Your task to perform on an android device: Is it going to rain this weekend? Image 0: 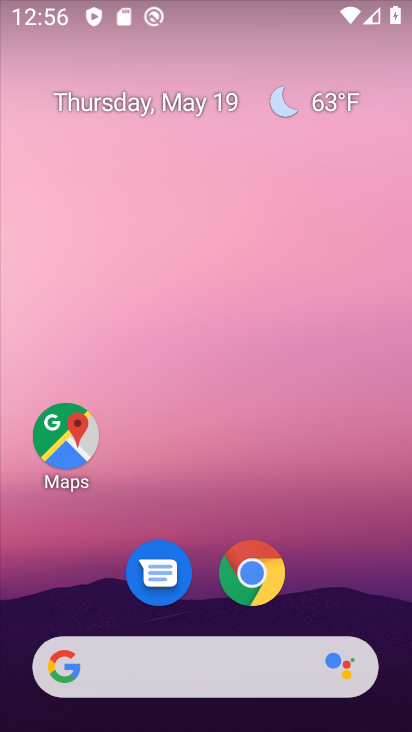
Step 0: drag from (317, 562) to (359, 304)
Your task to perform on an android device: Is it going to rain this weekend? Image 1: 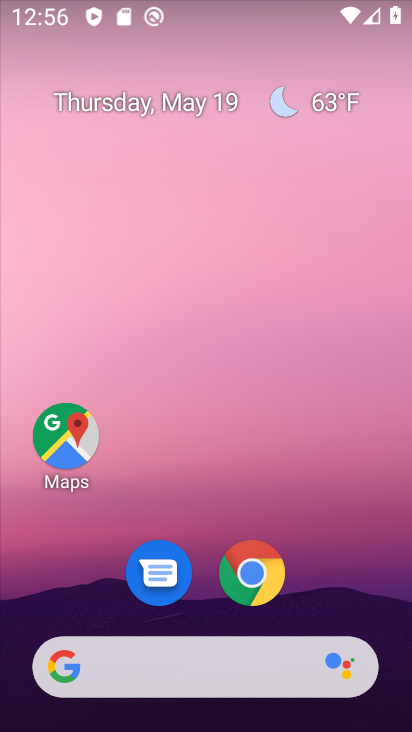
Step 1: drag from (303, 561) to (320, 199)
Your task to perform on an android device: Is it going to rain this weekend? Image 2: 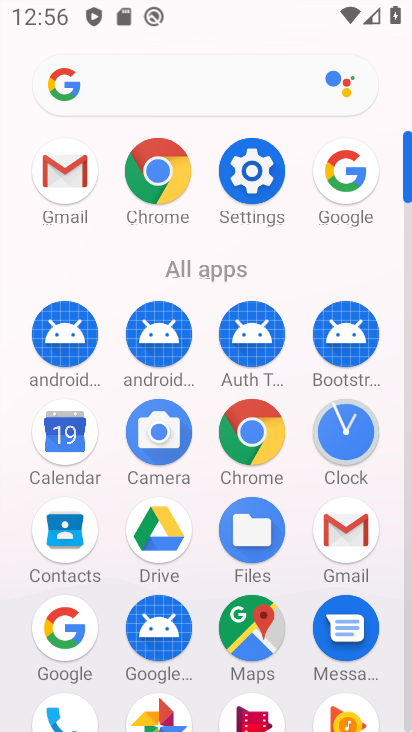
Step 2: click (159, 163)
Your task to perform on an android device: Is it going to rain this weekend? Image 3: 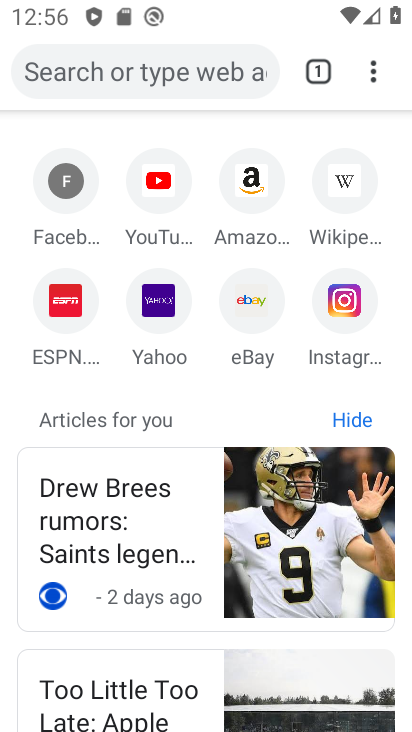
Step 3: click (152, 50)
Your task to perform on an android device: Is it going to rain this weekend? Image 4: 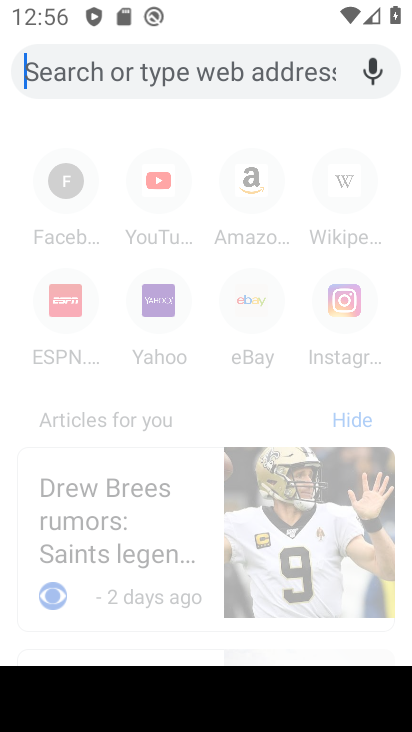
Step 4: click (132, 60)
Your task to perform on an android device: Is it going to rain this weekend? Image 5: 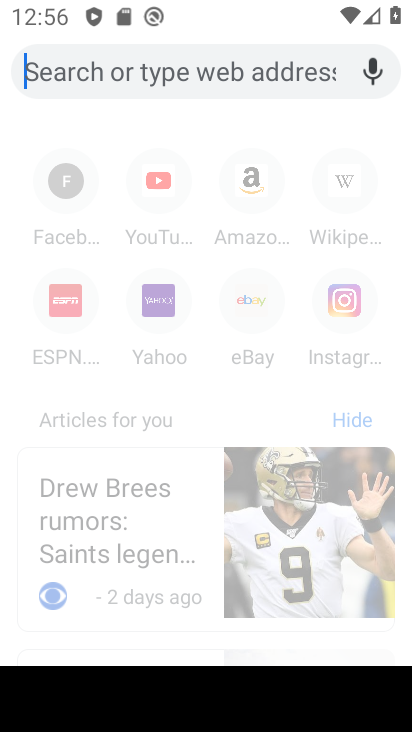
Step 5: type "Is it going to rain this weekend?"
Your task to perform on an android device: Is it going to rain this weekend? Image 6: 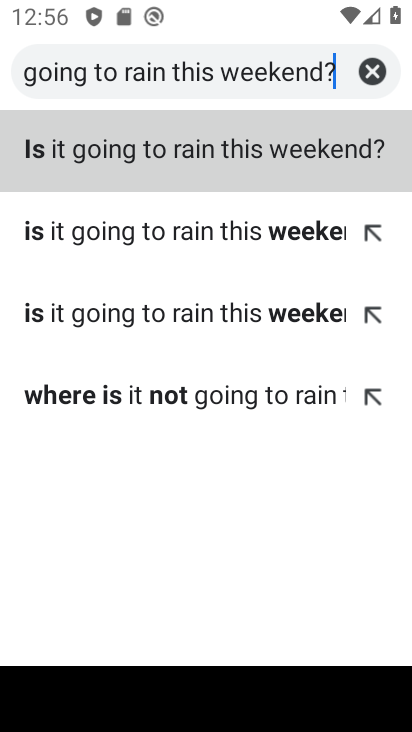
Step 6: click (306, 144)
Your task to perform on an android device: Is it going to rain this weekend? Image 7: 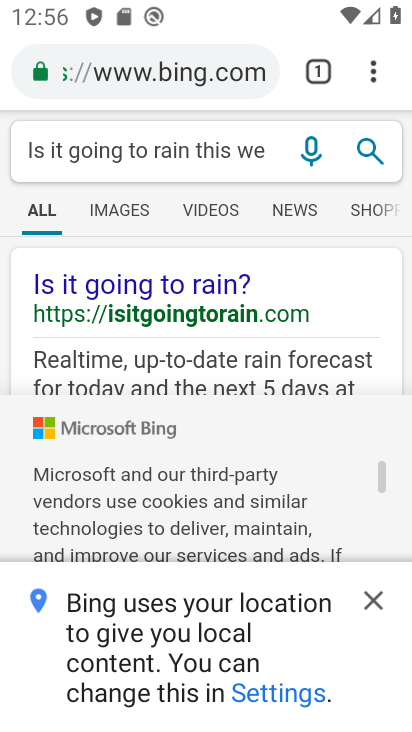
Step 7: task complete